Your task to perform on an android device: show emergency info Image 0: 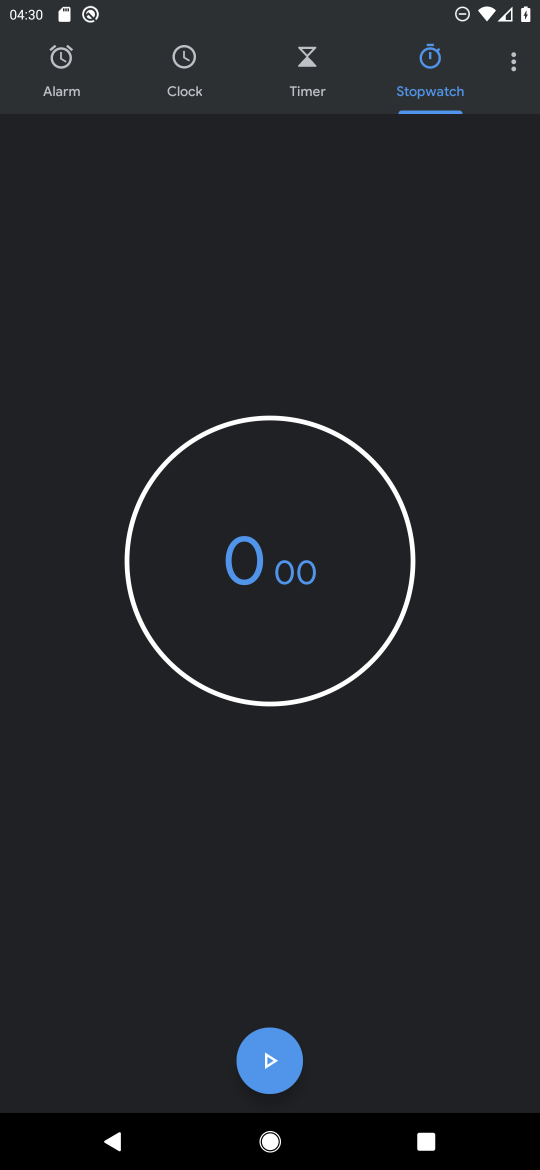
Step 0: press home button
Your task to perform on an android device: show emergency info Image 1: 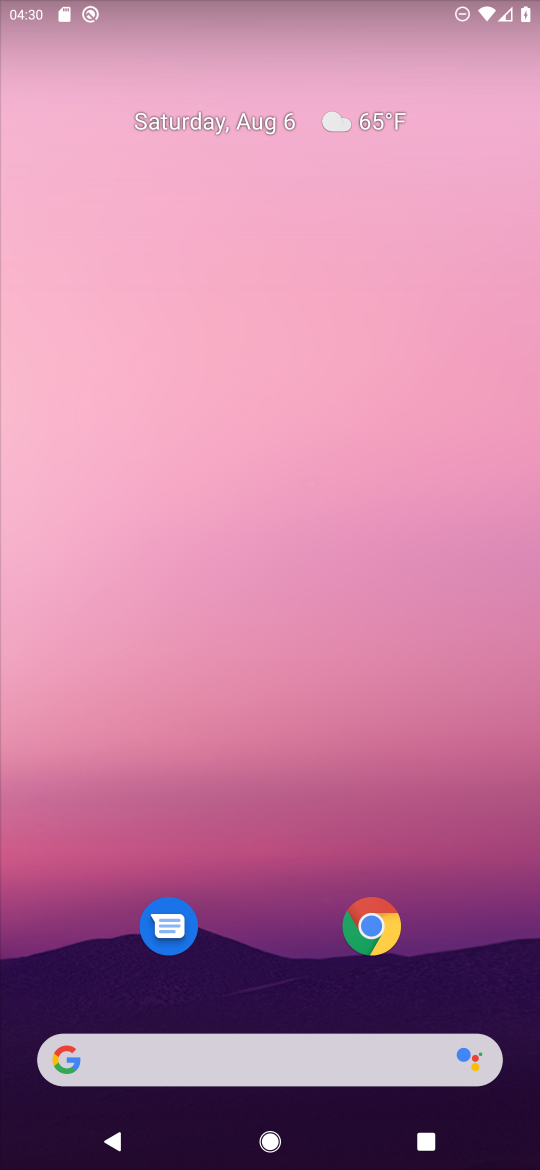
Step 1: drag from (254, 954) to (266, 384)
Your task to perform on an android device: show emergency info Image 2: 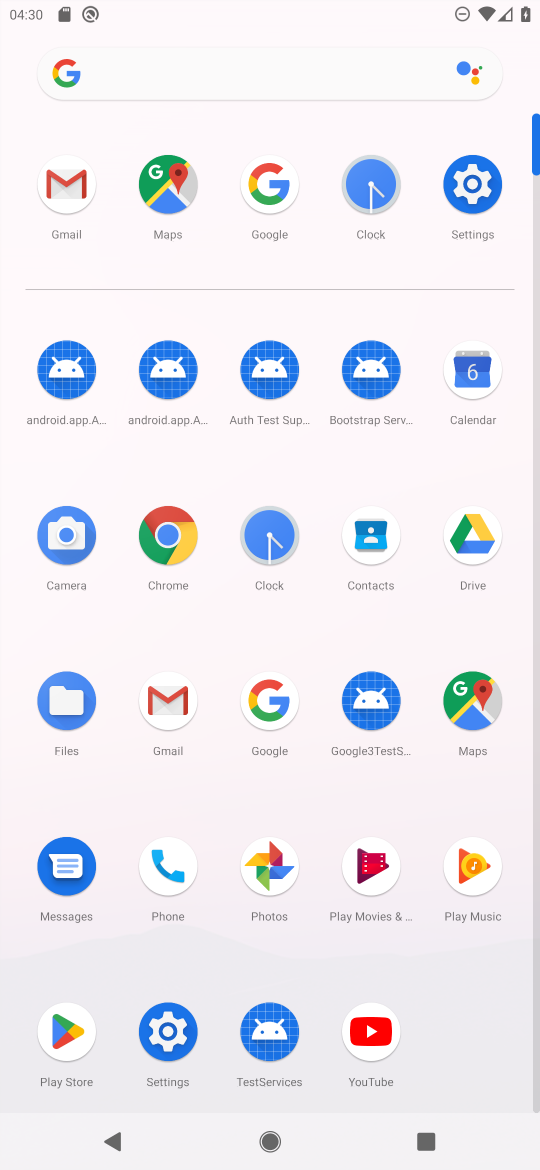
Step 2: click (454, 207)
Your task to perform on an android device: show emergency info Image 3: 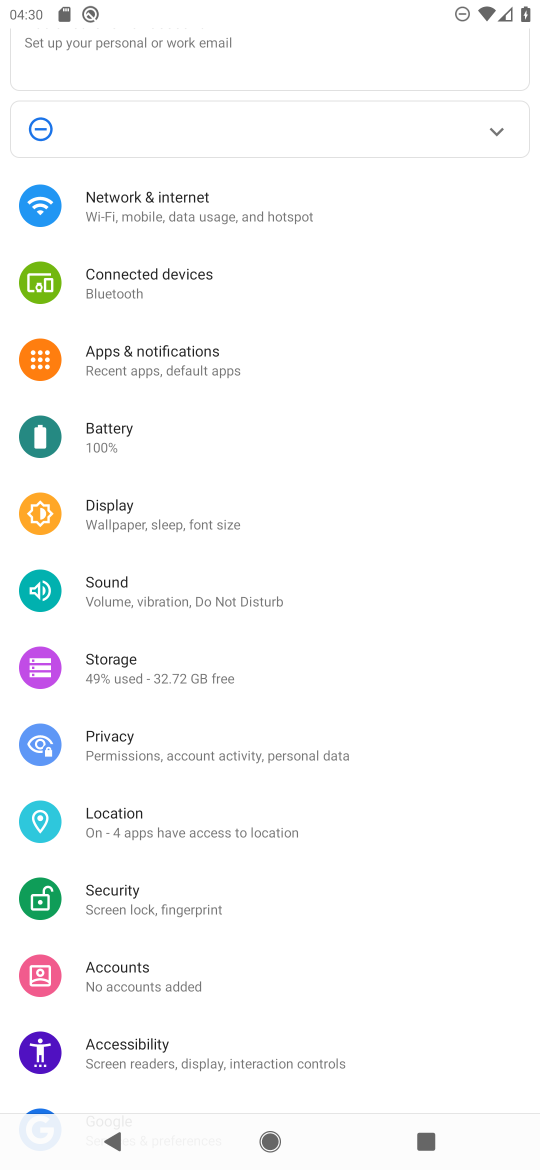
Step 3: drag from (341, 998) to (274, 206)
Your task to perform on an android device: show emergency info Image 4: 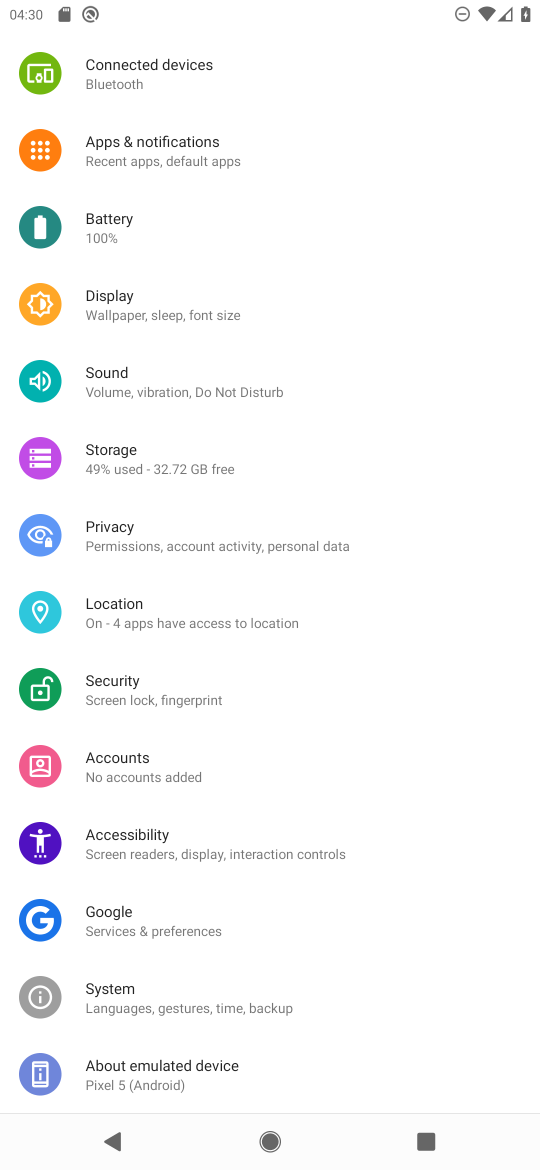
Step 4: click (145, 1058)
Your task to perform on an android device: show emergency info Image 5: 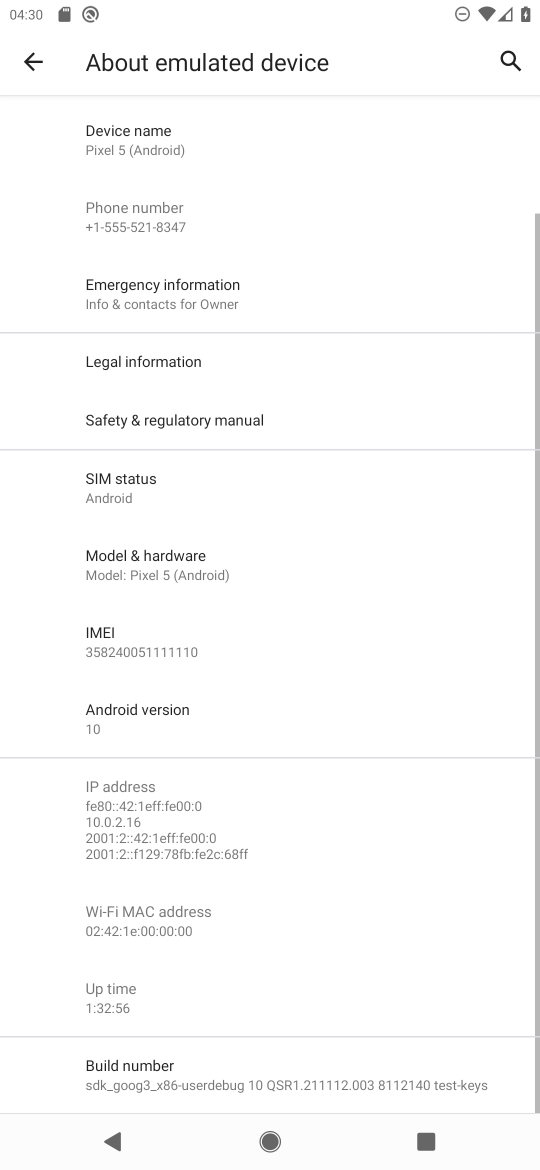
Step 5: click (211, 297)
Your task to perform on an android device: show emergency info Image 6: 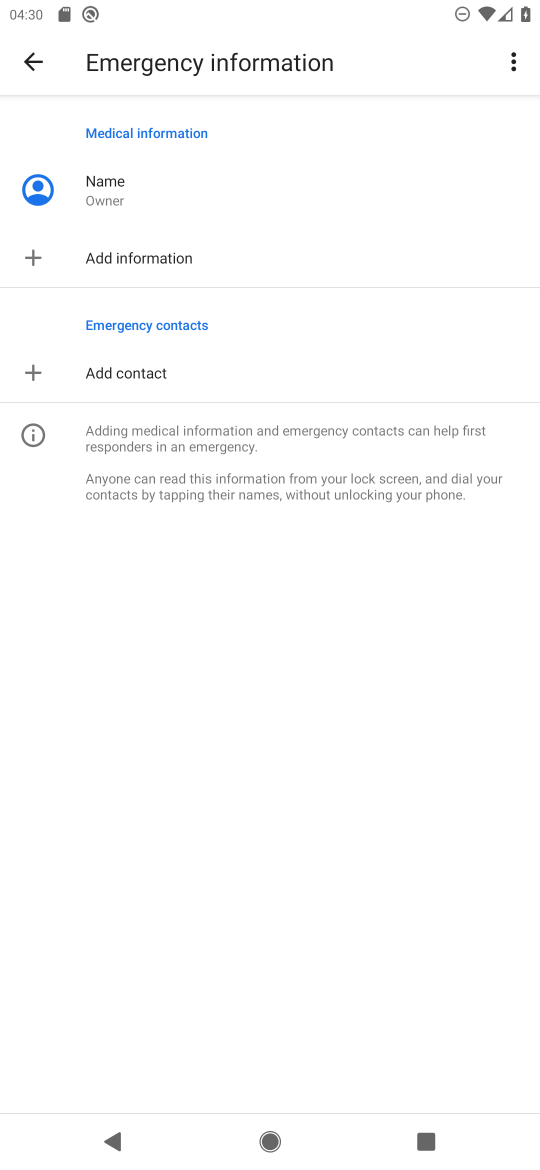
Step 6: task complete